Your task to perform on an android device: Search for razer blade on amazon.com, select the first entry, and add it to the cart. Image 0: 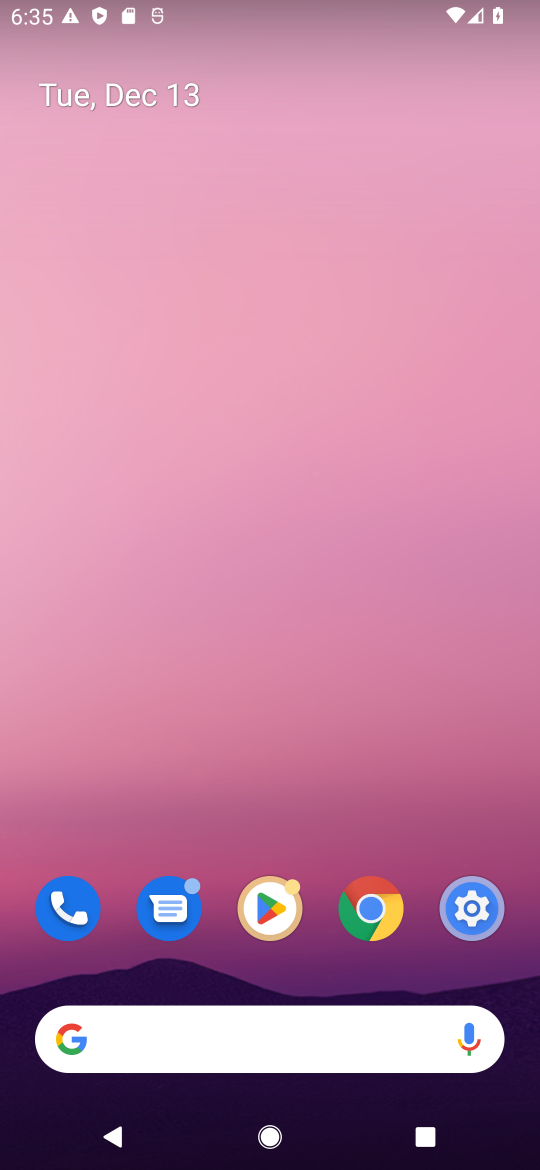
Step 0: press home button
Your task to perform on an android device: Search for razer blade on amazon.com, select the first entry, and add it to the cart. Image 1: 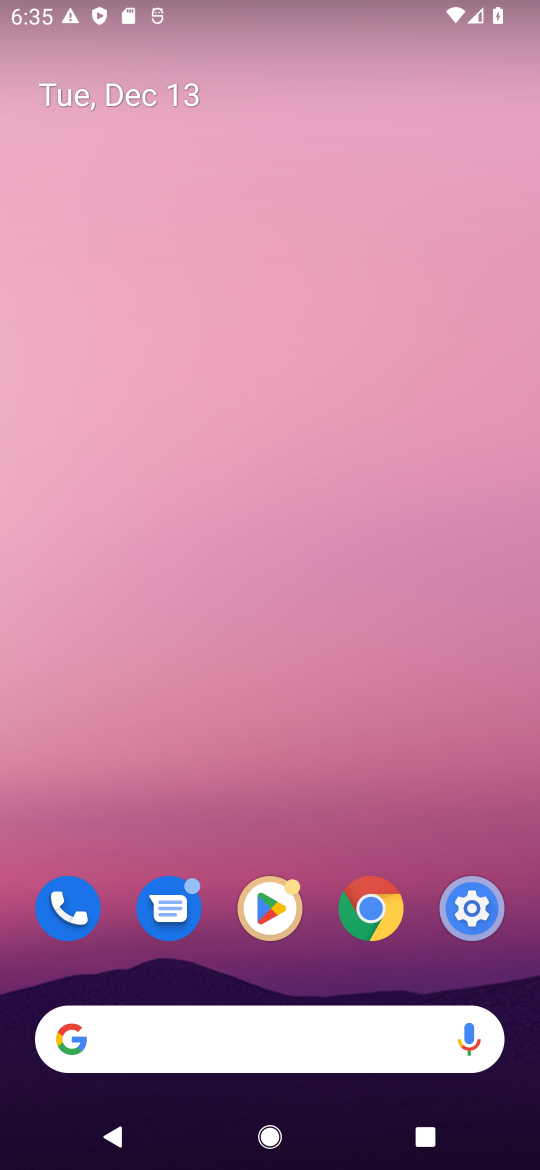
Step 1: click (105, 1041)
Your task to perform on an android device: Search for razer blade on amazon.com, select the first entry, and add it to the cart. Image 2: 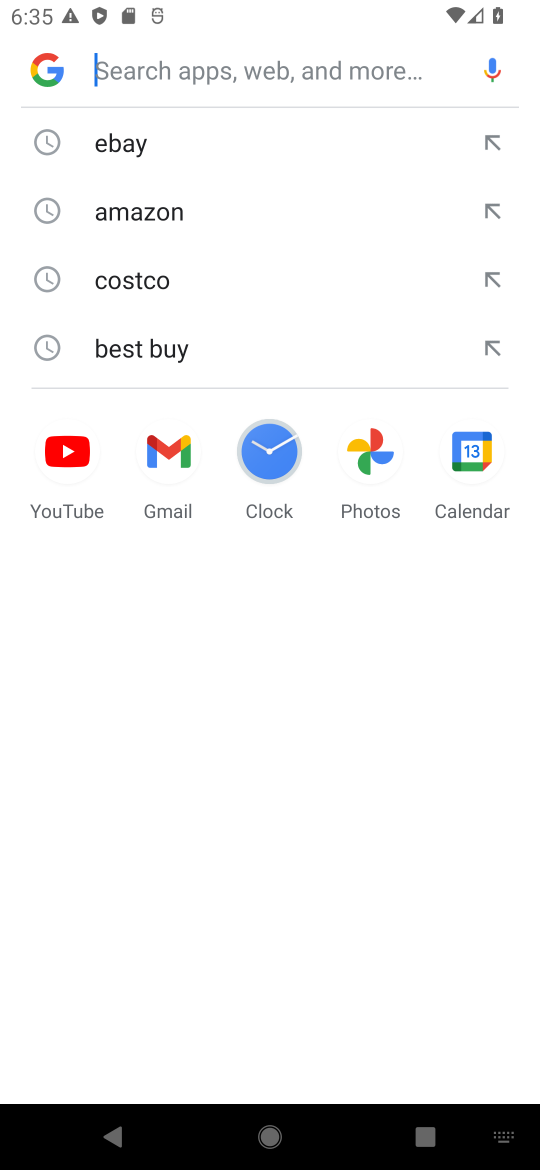
Step 2: press enter
Your task to perform on an android device: Search for razer blade on amazon.com, select the first entry, and add it to the cart. Image 3: 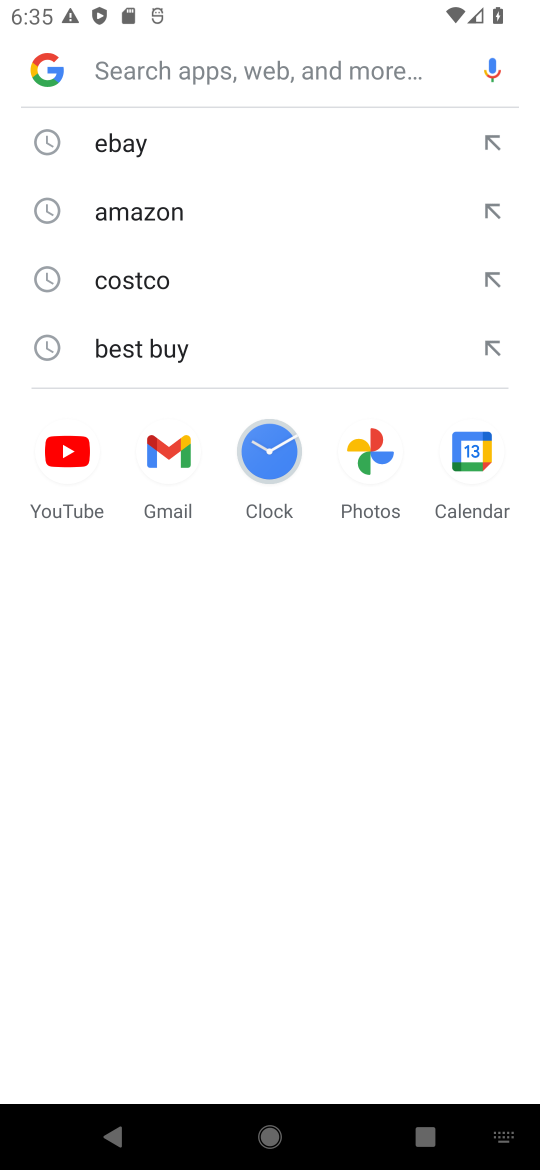
Step 3: type "amazon.com"
Your task to perform on an android device: Search for razer blade on amazon.com, select the first entry, and add it to the cart. Image 4: 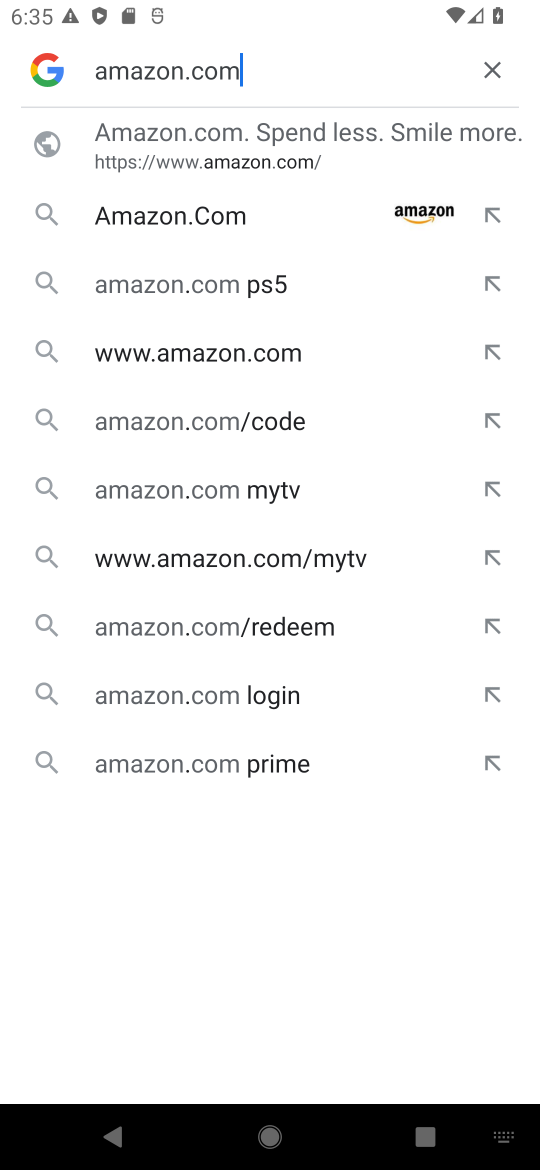
Step 4: press enter
Your task to perform on an android device: Search for razer blade on amazon.com, select the first entry, and add it to the cart. Image 5: 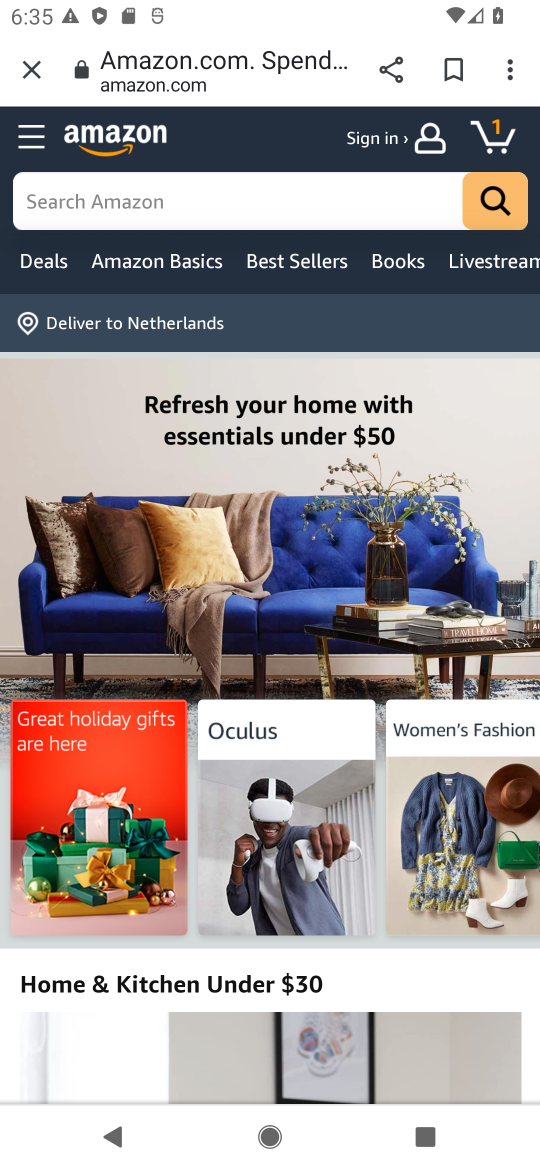
Step 5: click (83, 196)
Your task to perform on an android device: Search for razer blade on amazon.com, select the first entry, and add it to the cart. Image 6: 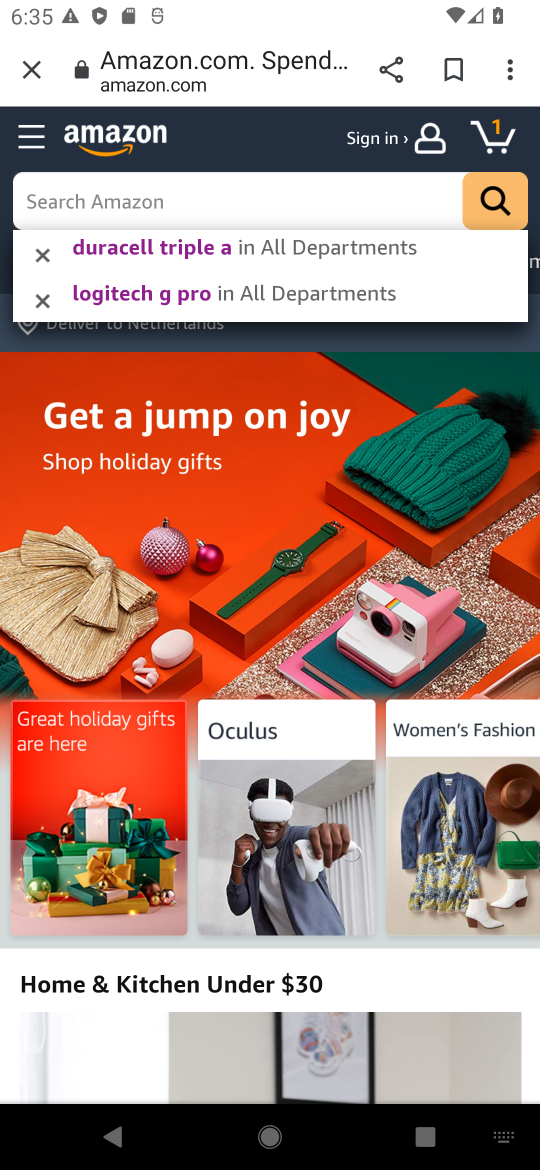
Step 6: press enter
Your task to perform on an android device: Search for razer blade on amazon.com, select the first entry, and add it to the cart. Image 7: 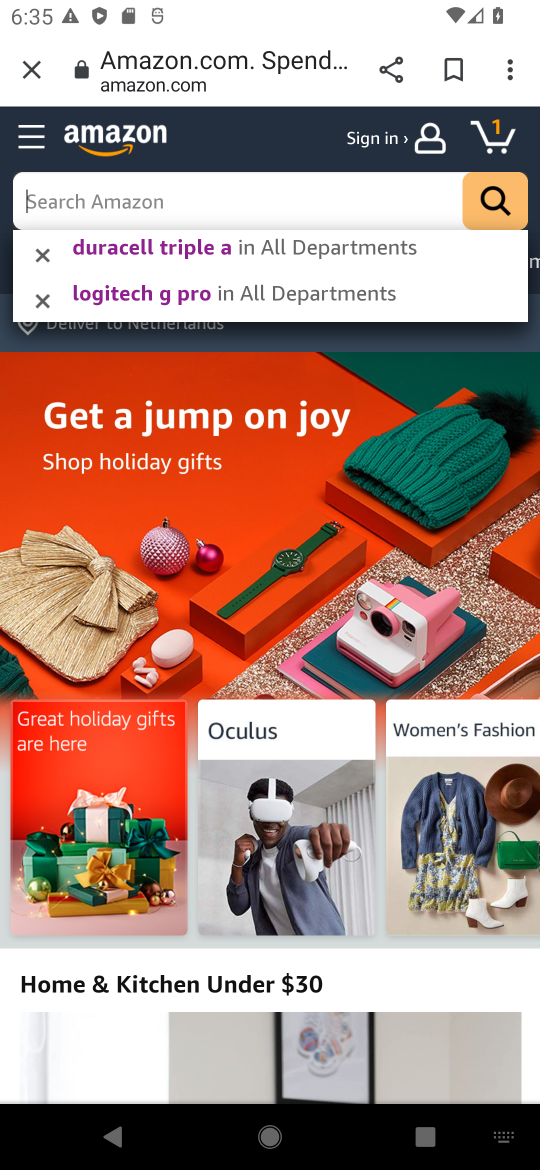
Step 7: type "razer blade"
Your task to perform on an android device: Search for razer blade on amazon.com, select the first entry, and add it to the cart. Image 8: 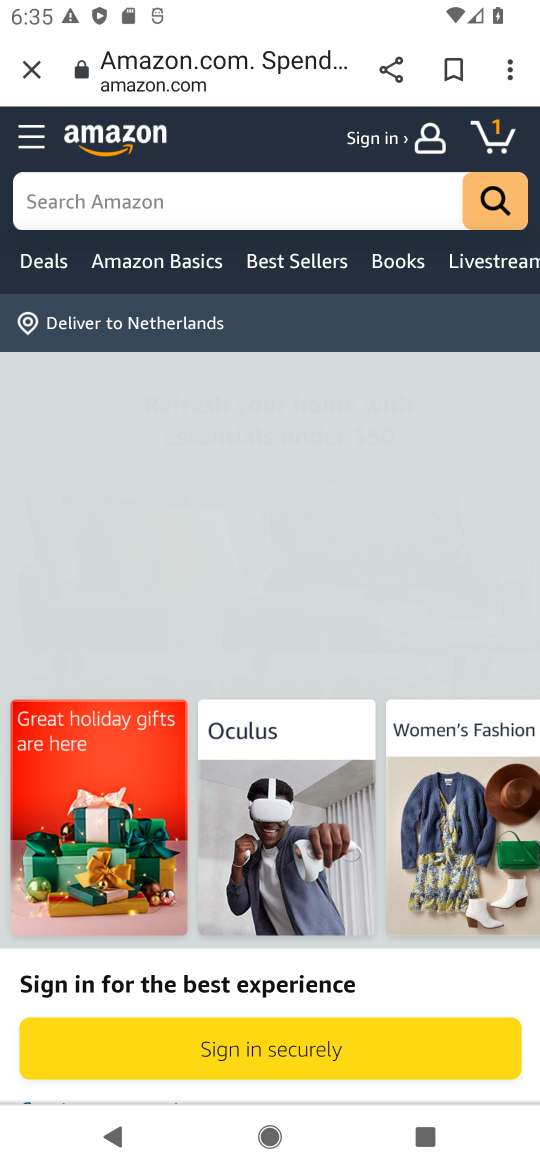
Step 8: click (176, 199)
Your task to perform on an android device: Search for razer blade on amazon.com, select the first entry, and add it to the cart. Image 9: 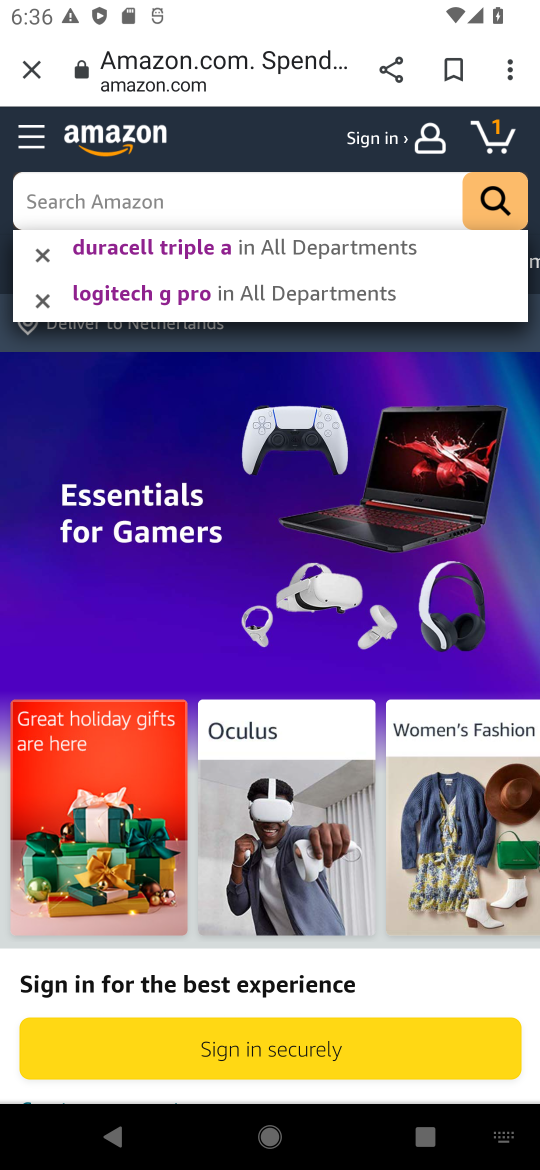
Step 9: type "razer blade"
Your task to perform on an android device: Search for razer blade on amazon.com, select the first entry, and add it to the cart. Image 10: 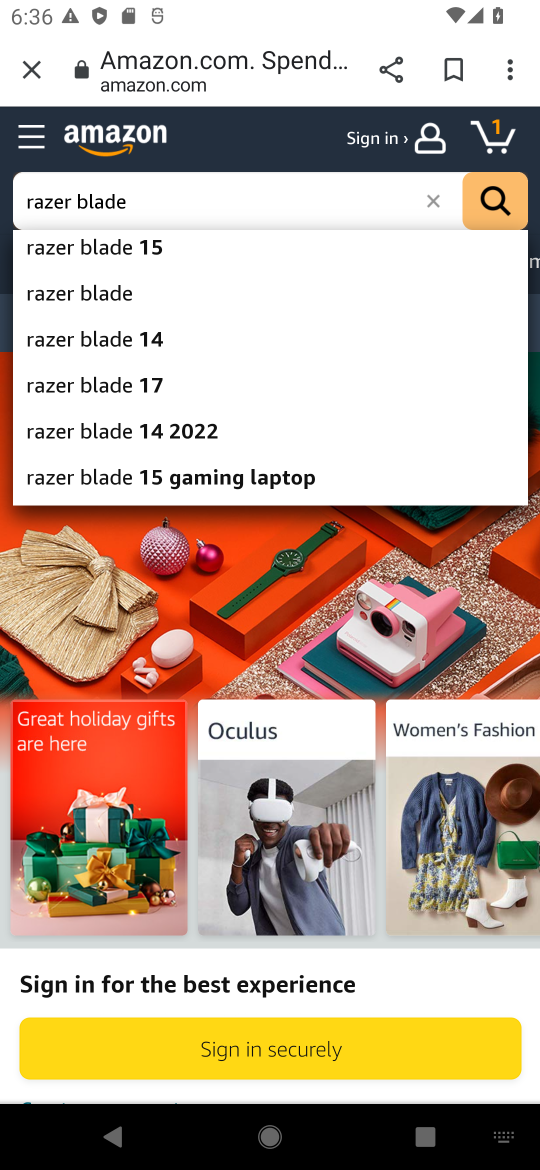
Step 10: press enter
Your task to perform on an android device: Search for razer blade on amazon.com, select the first entry, and add it to the cart. Image 11: 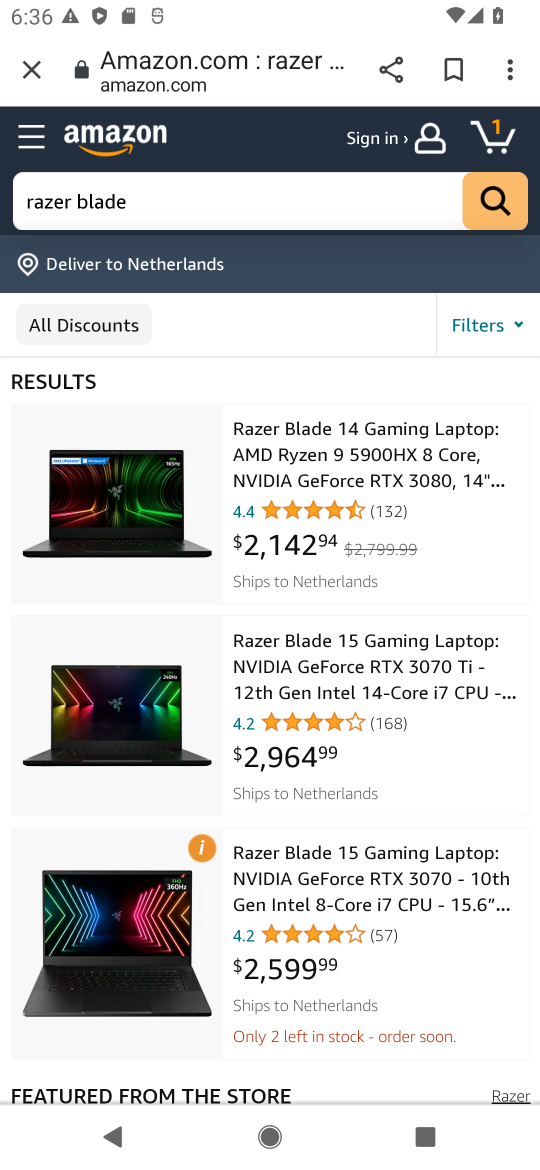
Step 11: click (322, 465)
Your task to perform on an android device: Search for razer blade on amazon.com, select the first entry, and add it to the cart. Image 12: 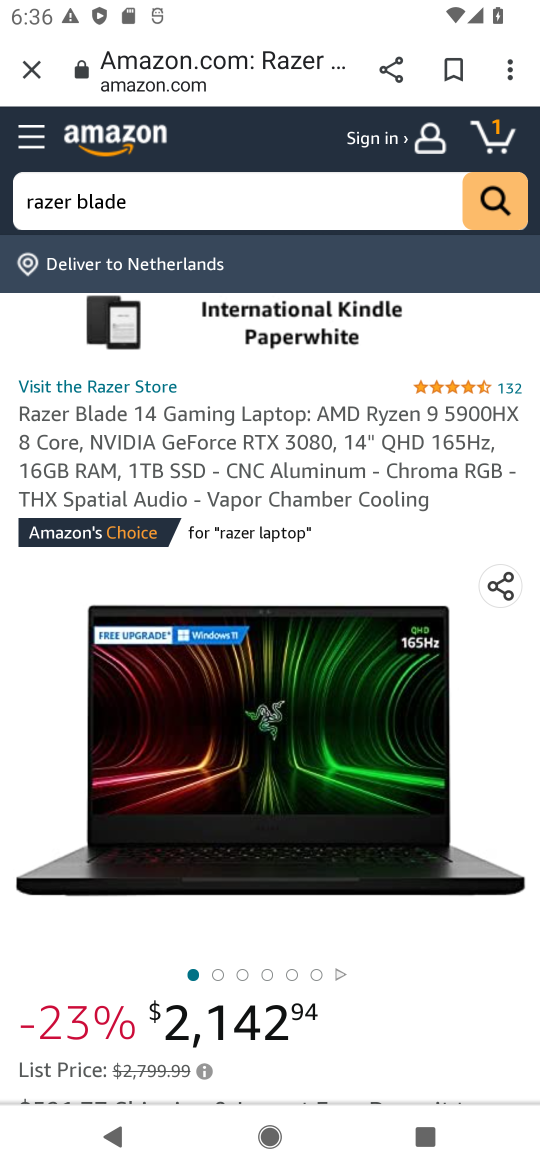
Step 12: drag from (372, 1002) to (366, 536)
Your task to perform on an android device: Search for razer blade on amazon.com, select the first entry, and add it to the cart. Image 13: 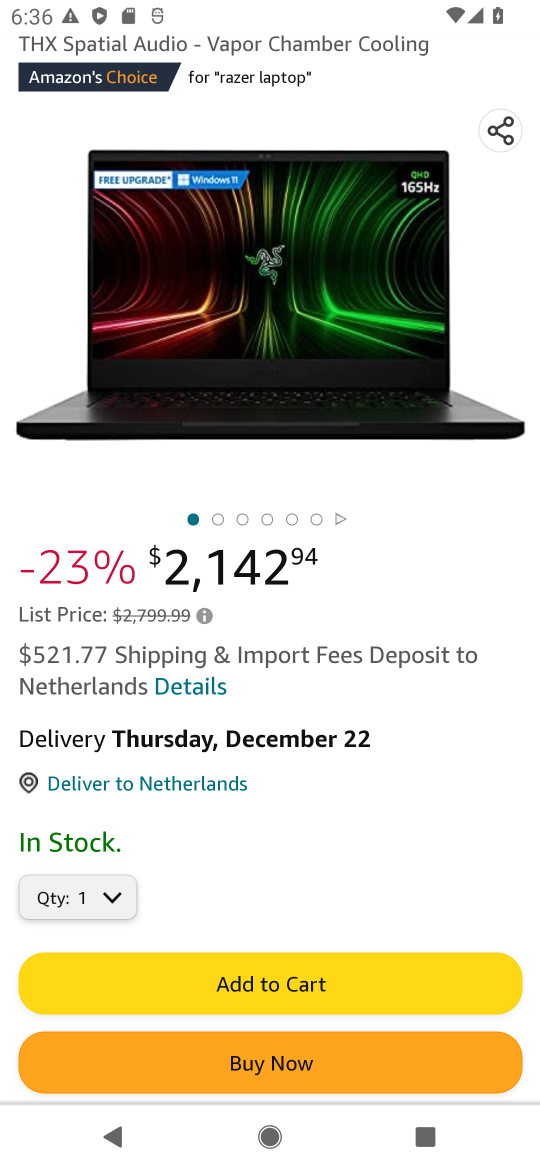
Step 13: drag from (297, 809) to (309, 252)
Your task to perform on an android device: Search for razer blade on amazon.com, select the first entry, and add it to the cart. Image 14: 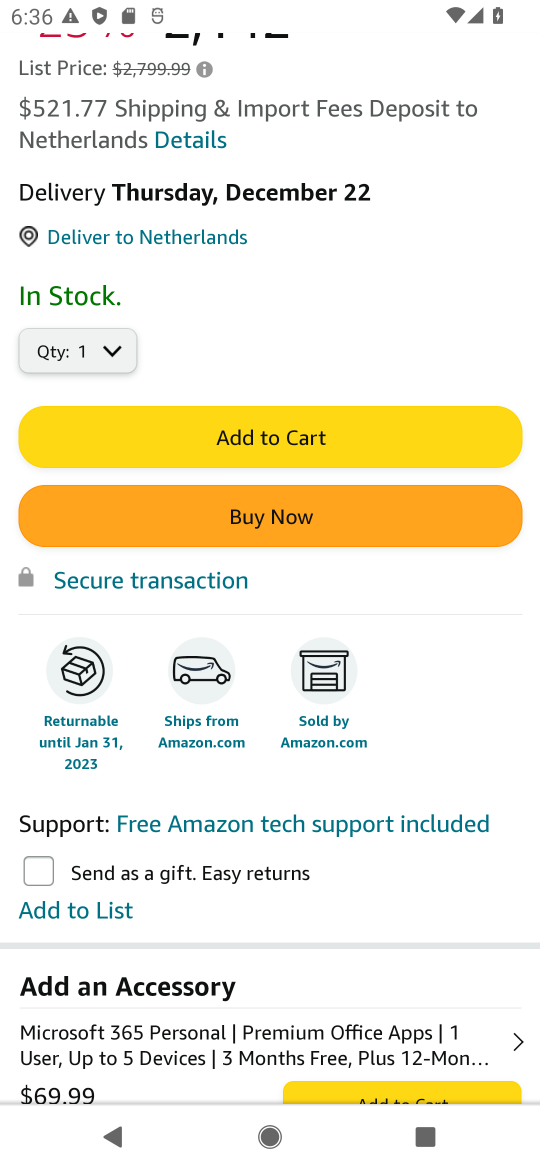
Step 14: click (232, 444)
Your task to perform on an android device: Search for razer blade on amazon.com, select the first entry, and add it to the cart. Image 15: 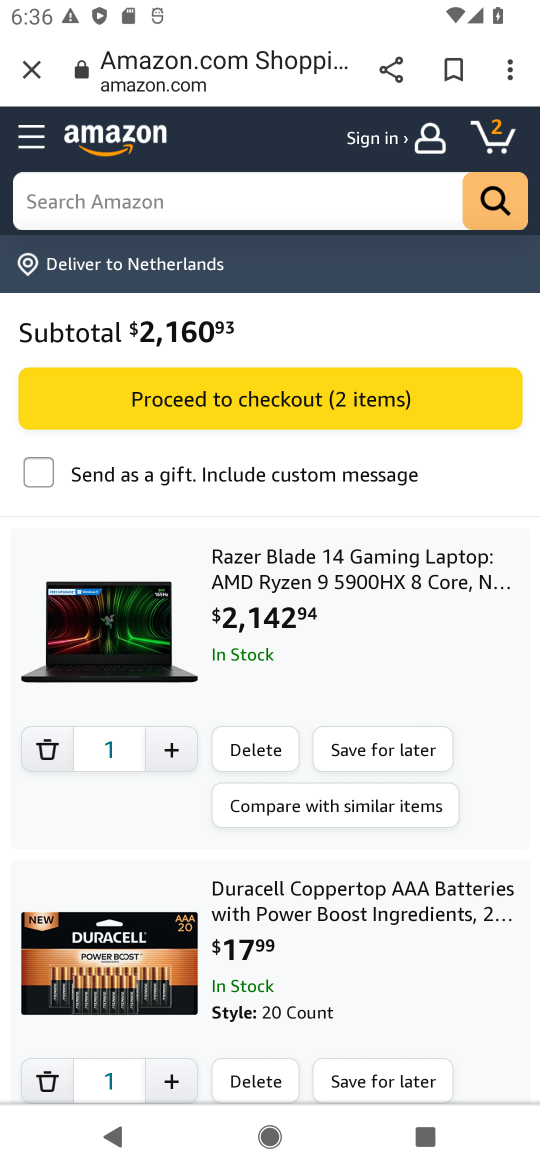
Step 15: task complete